Your task to perform on an android device: toggle airplane mode Image 0: 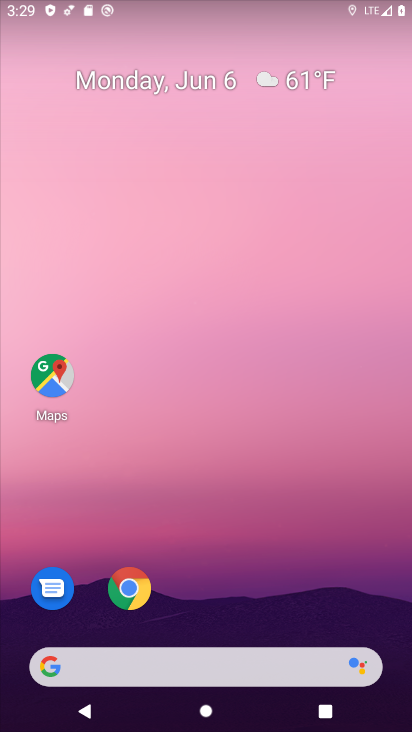
Step 0: drag from (187, 308) to (180, 273)
Your task to perform on an android device: toggle airplane mode Image 1: 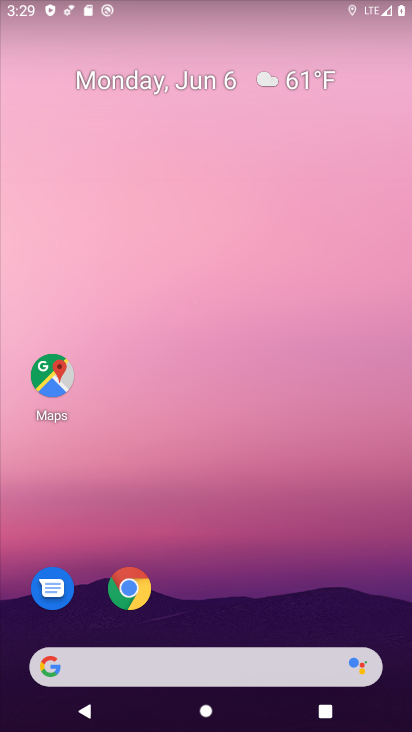
Step 1: drag from (237, 472) to (212, 237)
Your task to perform on an android device: toggle airplane mode Image 2: 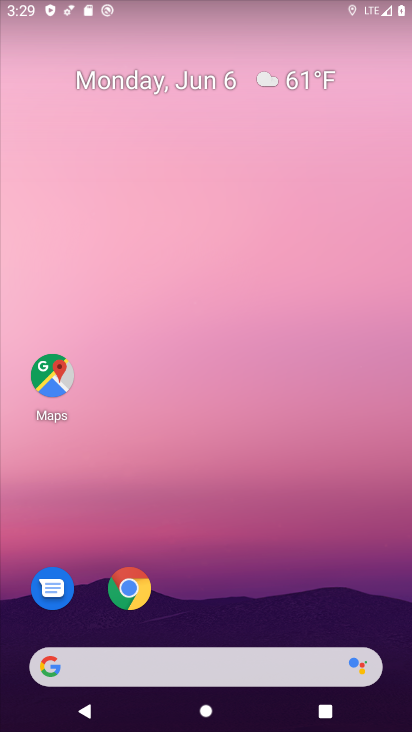
Step 2: drag from (239, 628) to (224, 154)
Your task to perform on an android device: toggle airplane mode Image 3: 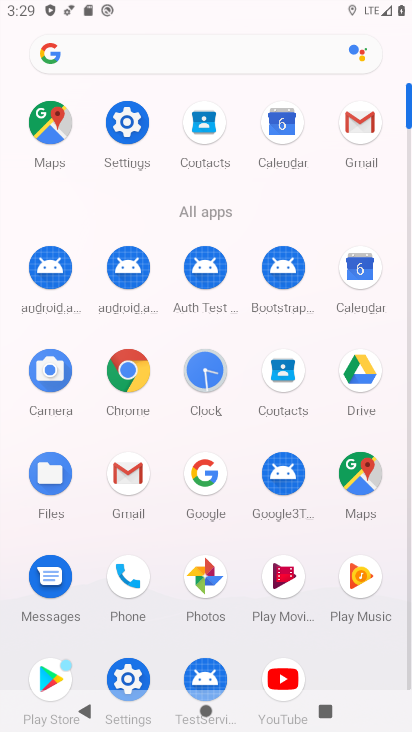
Step 3: click (130, 119)
Your task to perform on an android device: toggle airplane mode Image 4: 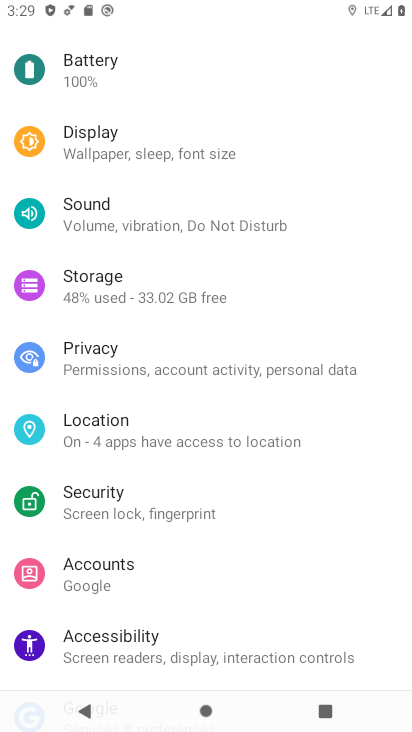
Step 4: drag from (236, 128) to (253, 440)
Your task to perform on an android device: toggle airplane mode Image 5: 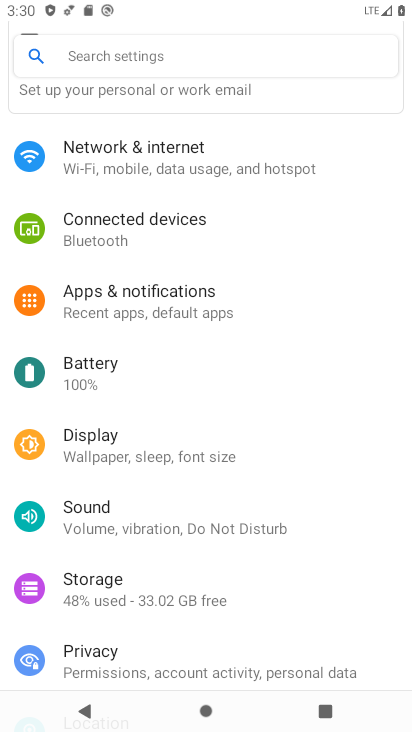
Step 5: click (191, 165)
Your task to perform on an android device: toggle airplane mode Image 6: 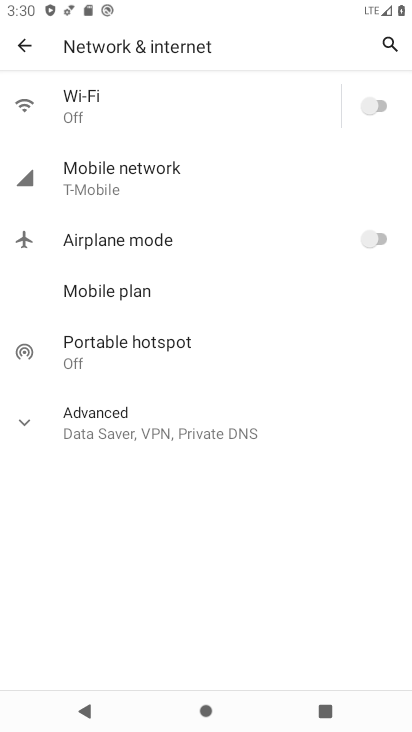
Step 6: click (378, 245)
Your task to perform on an android device: toggle airplane mode Image 7: 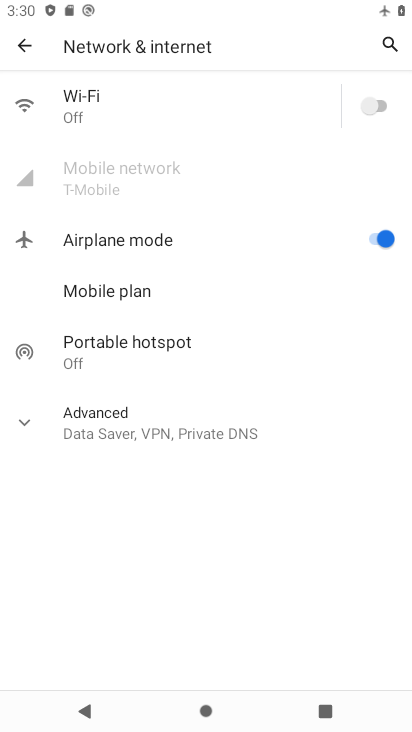
Step 7: task complete